Your task to perform on an android device: turn off sleep mode Image 0: 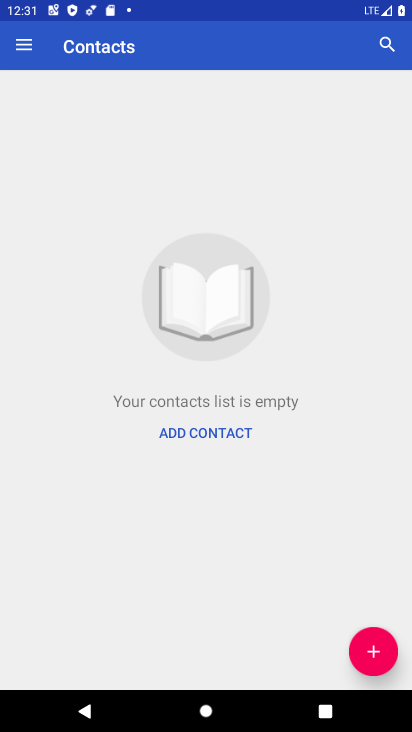
Step 0: drag from (219, 623) to (210, 586)
Your task to perform on an android device: turn off sleep mode Image 1: 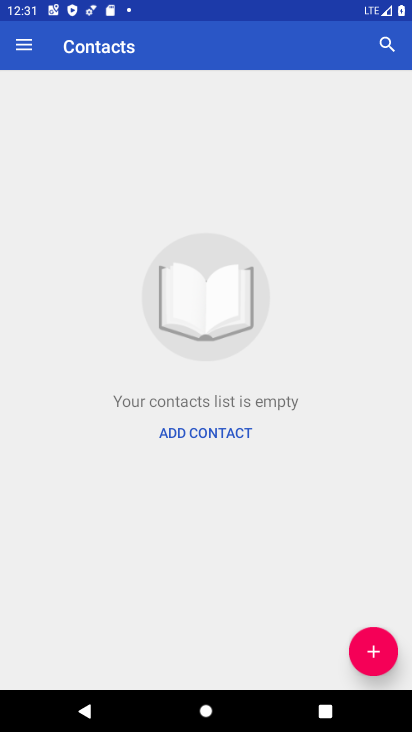
Step 1: task complete